Your task to perform on an android device: Open sound settings Image 0: 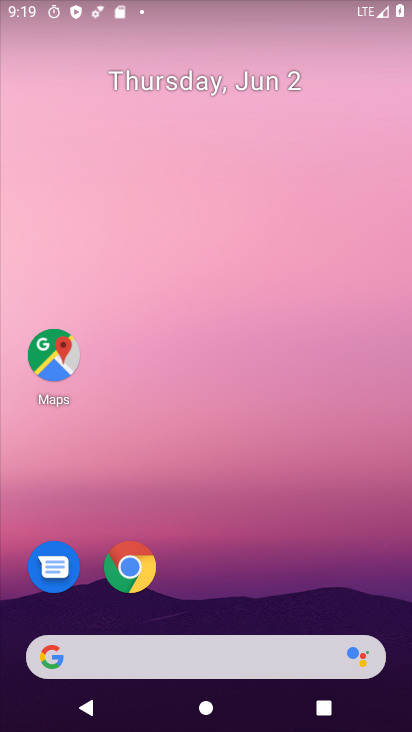
Step 0: drag from (356, 553) to (356, 153)
Your task to perform on an android device: Open sound settings Image 1: 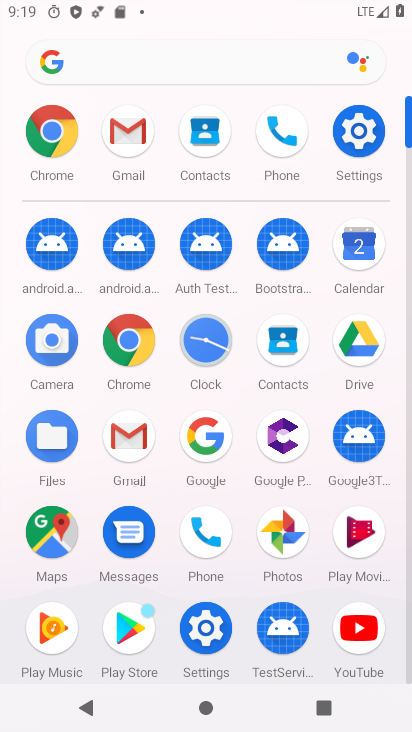
Step 1: click (211, 623)
Your task to perform on an android device: Open sound settings Image 2: 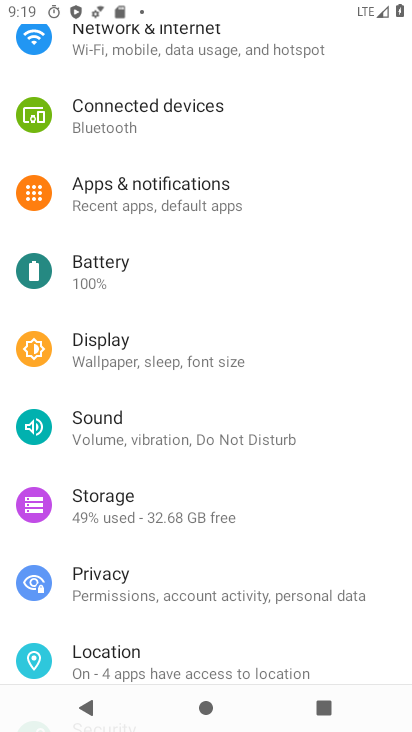
Step 2: click (187, 434)
Your task to perform on an android device: Open sound settings Image 3: 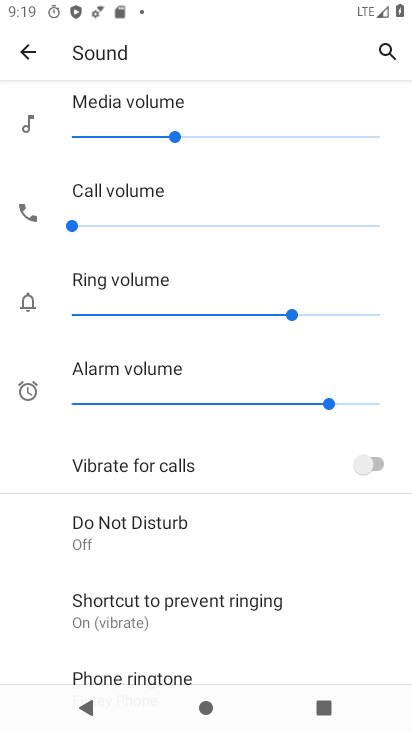
Step 3: task complete